Your task to perform on an android device: Open Youtube and go to "Your channel" Image 0: 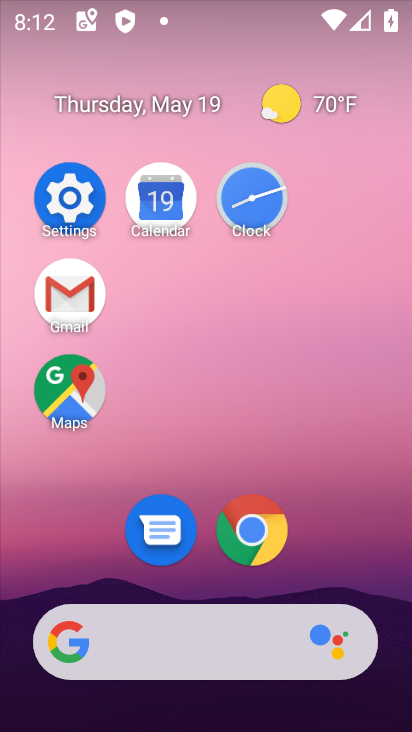
Step 0: drag from (319, 565) to (317, 137)
Your task to perform on an android device: Open Youtube and go to "Your channel" Image 1: 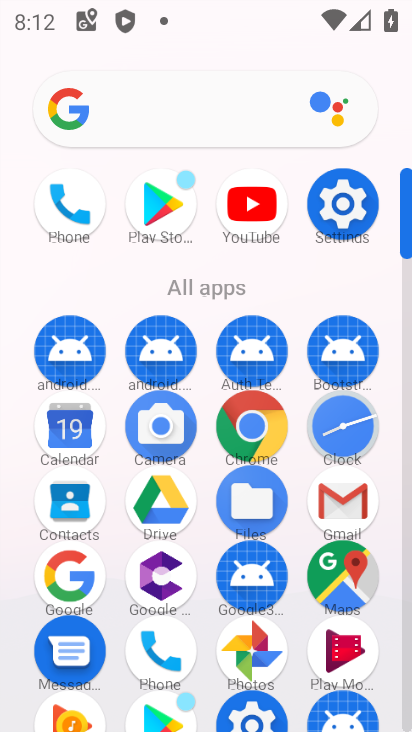
Step 1: drag from (266, 557) to (289, 416)
Your task to perform on an android device: Open Youtube and go to "Your channel" Image 2: 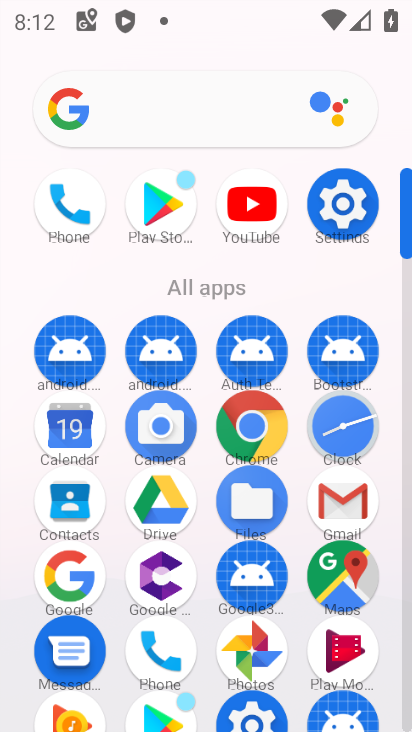
Step 2: click (244, 215)
Your task to perform on an android device: Open Youtube and go to "Your channel" Image 3: 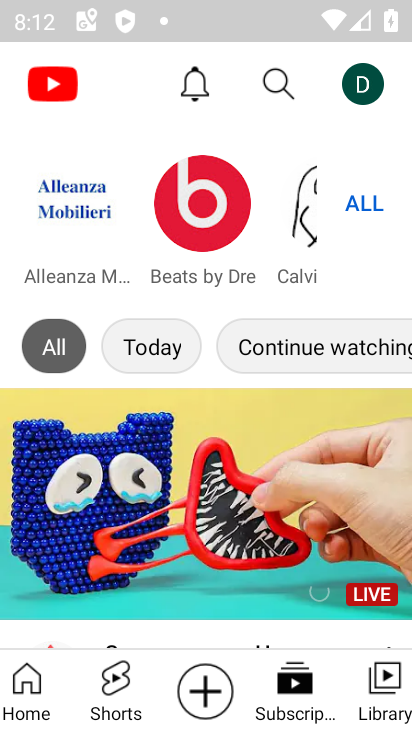
Step 3: click (354, 93)
Your task to perform on an android device: Open Youtube and go to "Your channel" Image 4: 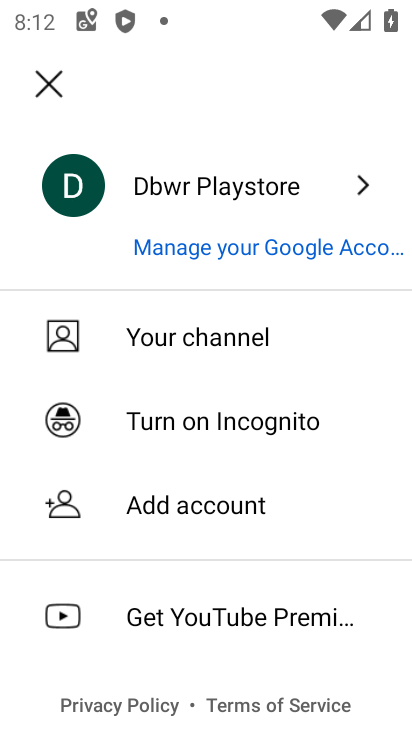
Step 4: click (283, 348)
Your task to perform on an android device: Open Youtube and go to "Your channel" Image 5: 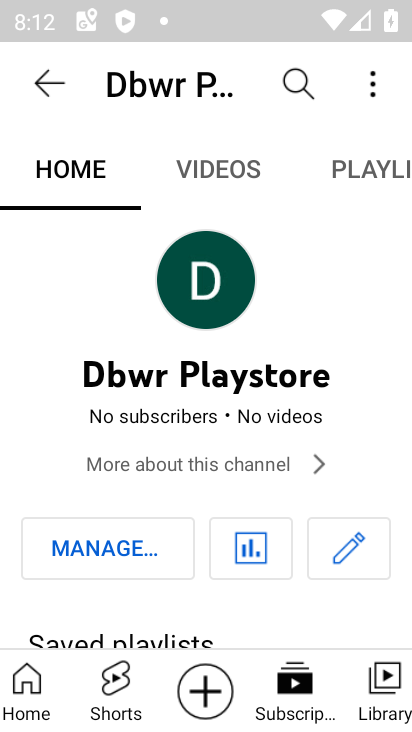
Step 5: task complete